Your task to perform on an android device: set default search engine in the chrome app Image 0: 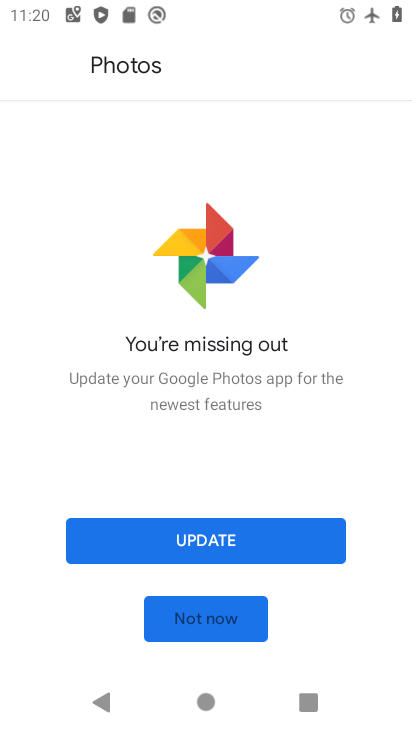
Step 0: click (233, 609)
Your task to perform on an android device: set default search engine in the chrome app Image 1: 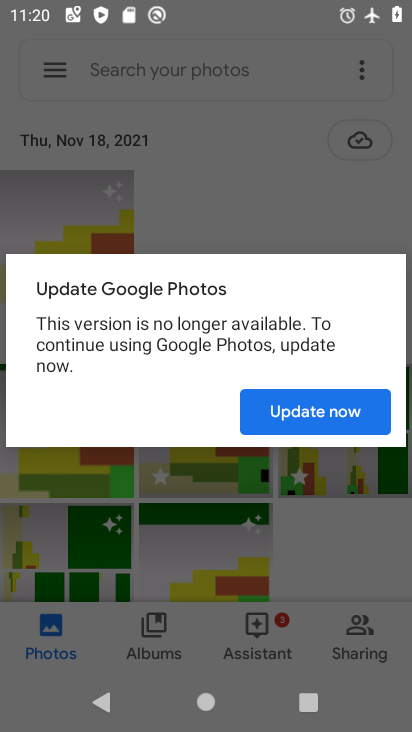
Step 1: click (289, 414)
Your task to perform on an android device: set default search engine in the chrome app Image 2: 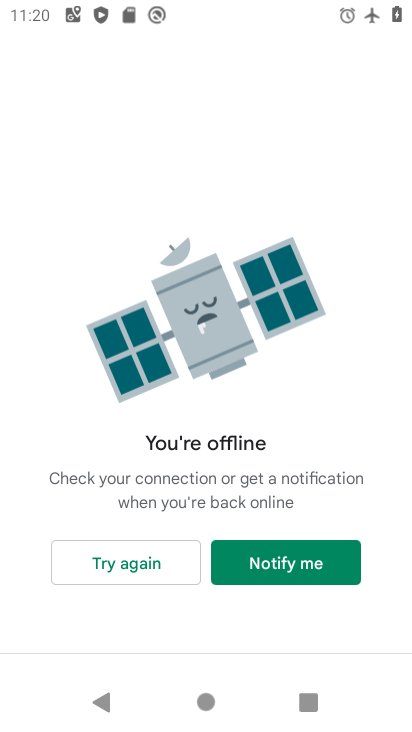
Step 2: press home button
Your task to perform on an android device: set default search engine in the chrome app Image 3: 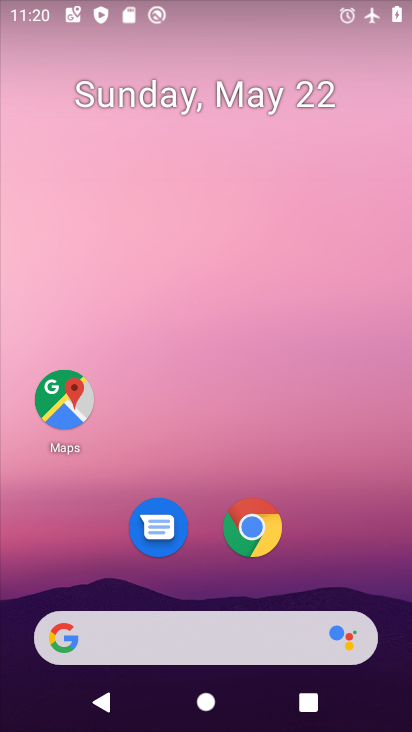
Step 3: click (264, 544)
Your task to perform on an android device: set default search engine in the chrome app Image 4: 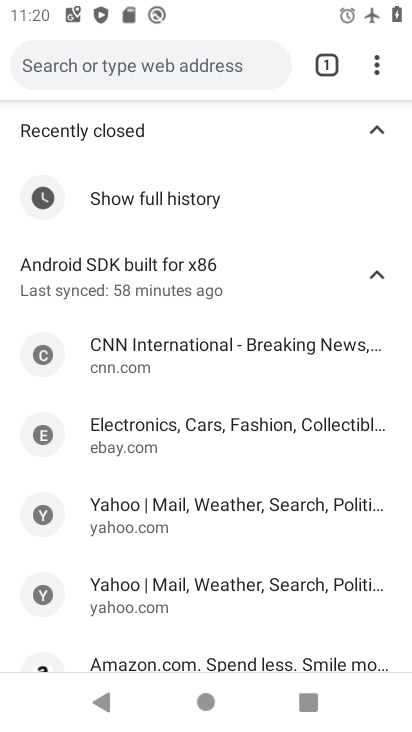
Step 4: click (376, 87)
Your task to perform on an android device: set default search engine in the chrome app Image 5: 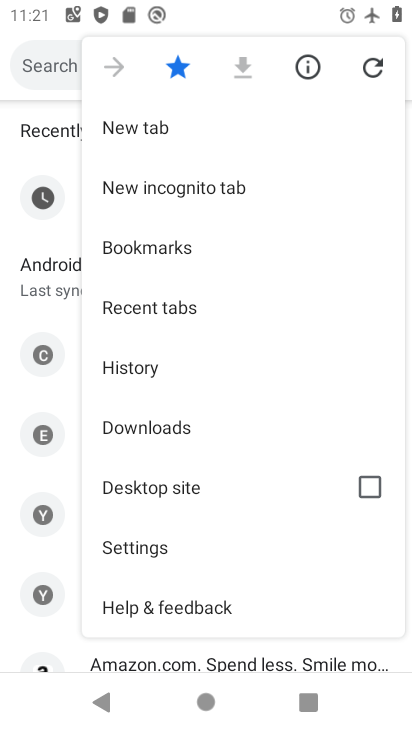
Step 5: click (181, 561)
Your task to perform on an android device: set default search engine in the chrome app Image 6: 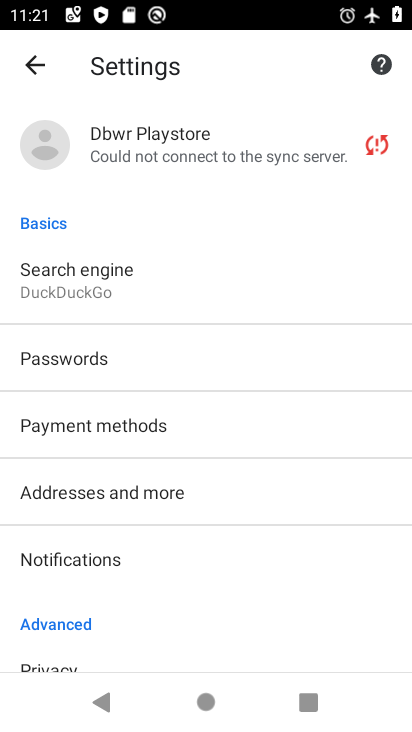
Step 6: click (176, 263)
Your task to perform on an android device: set default search engine in the chrome app Image 7: 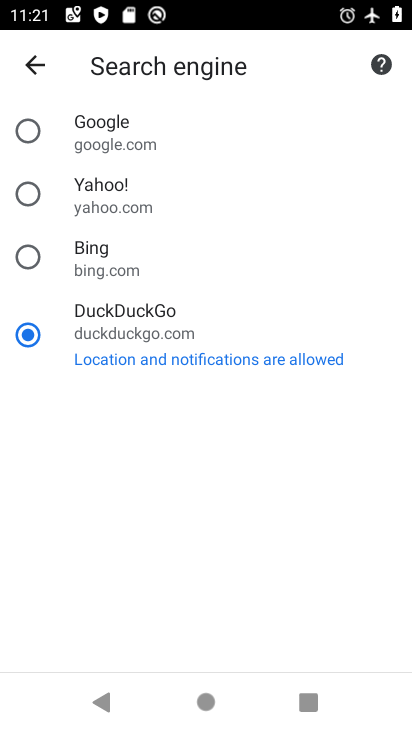
Step 7: click (251, 234)
Your task to perform on an android device: set default search engine in the chrome app Image 8: 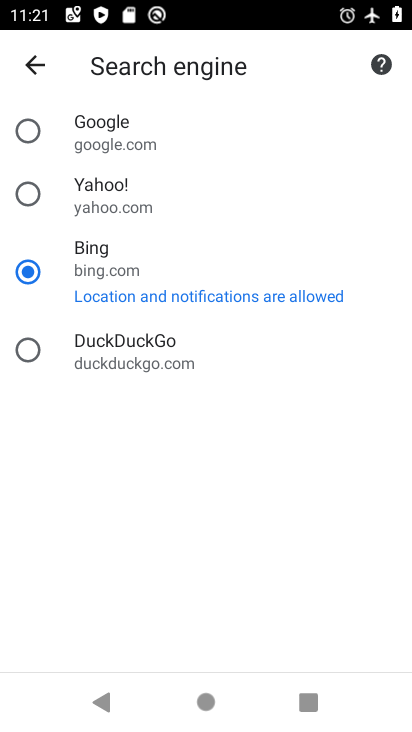
Step 8: task complete